Your task to perform on an android device: Search for vegetarian restaurants on Maps Image 0: 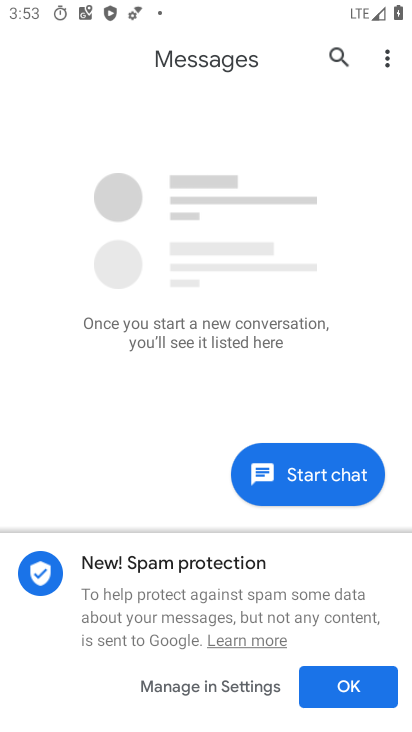
Step 0: press home button
Your task to perform on an android device: Search for vegetarian restaurants on Maps Image 1: 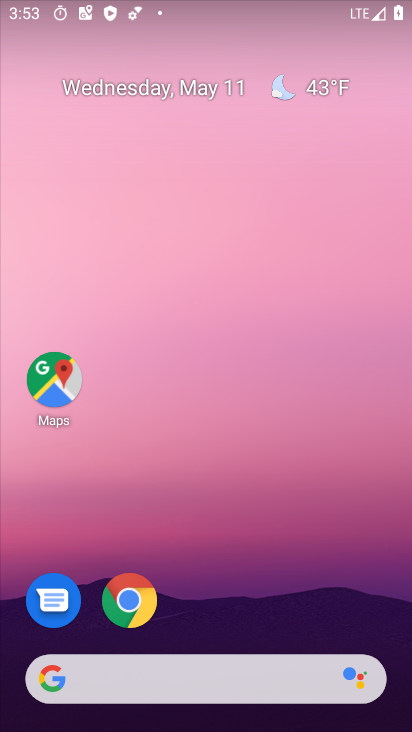
Step 1: click (52, 379)
Your task to perform on an android device: Search for vegetarian restaurants on Maps Image 2: 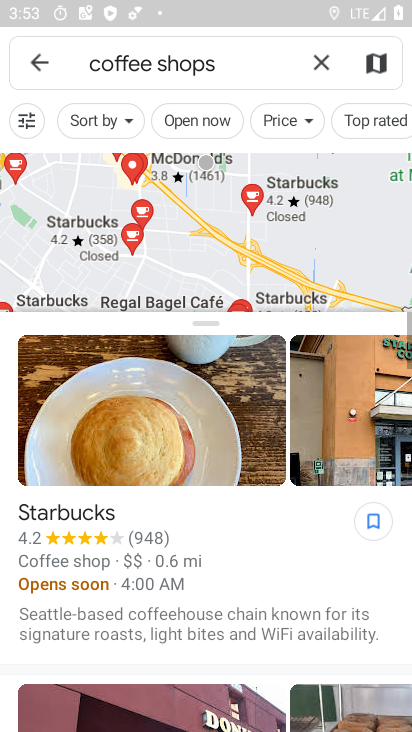
Step 2: click (318, 60)
Your task to perform on an android device: Search for vegetarian restaurants on Maps Image 3: 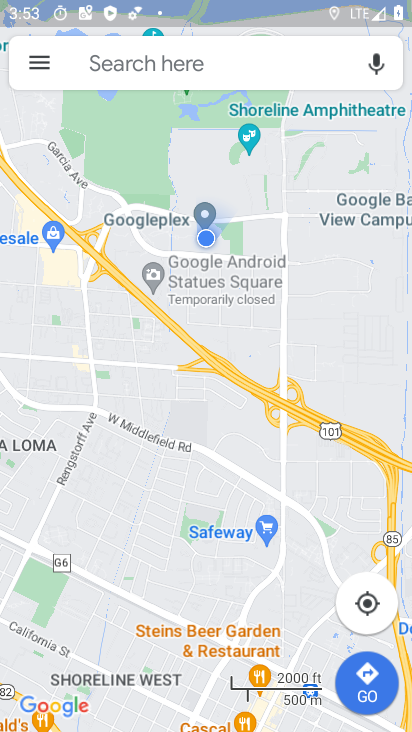
Step 3: click (103, 60)
Your task to perform on an android device: Search for vegetarian restaurants on Maps Image 4: 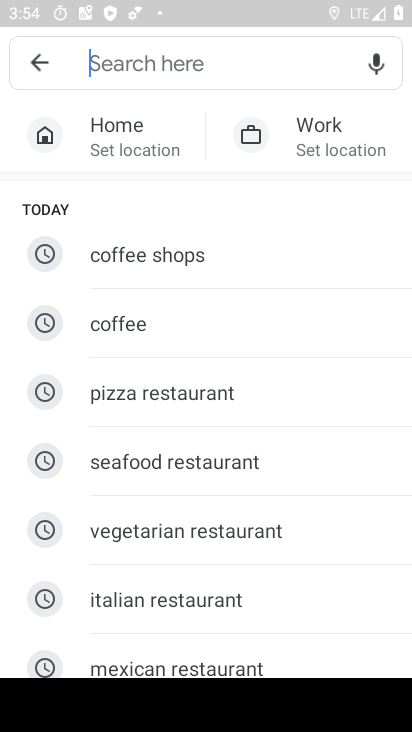
Step 4: type "vegetarian restaurant"
Your task to perform on an android device: Search for vegetarian restaurants on Maps Image 5: 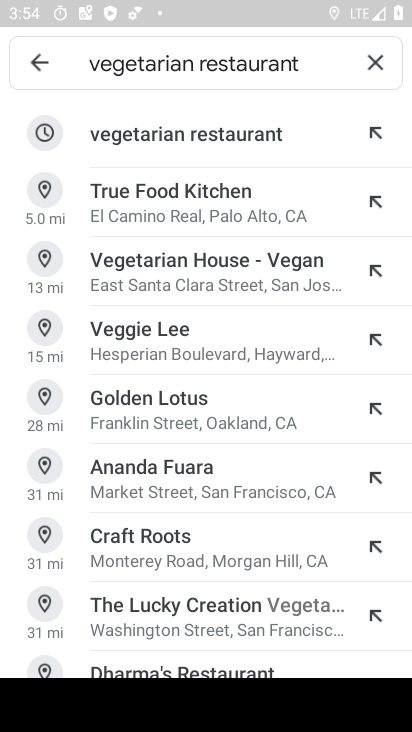
Step 5: click (204, 133)
Your task to perform on an android device: Search for vegetarian restaurants on Maps Image 6: 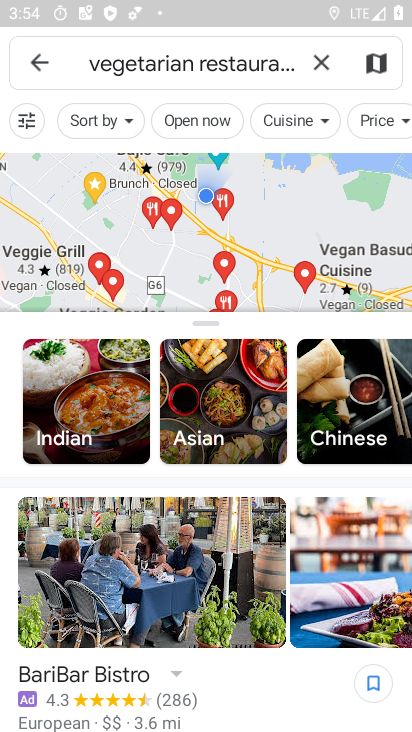
Step 6: task complete